Your task to perform on an android device: turn off improve location accuracy Image 0: 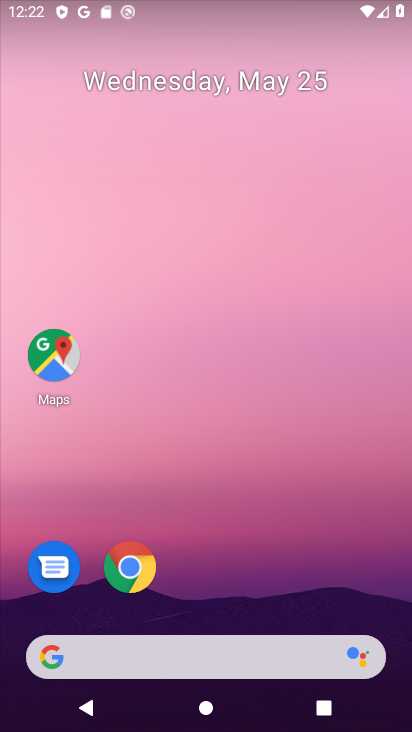
Step 0: drag from (214, 561) to (208, 185)
Your task to perform on an android device: turn off improve location accuracy Image 1: 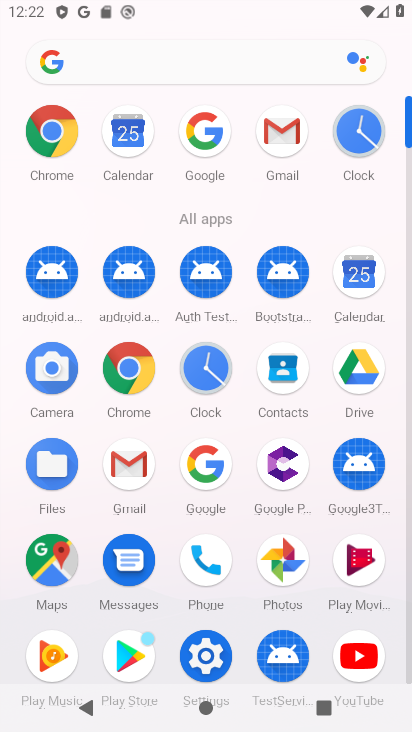
Step 1: click (205, 656)
Your task to perform on an android device: turn off improve location accuracy Image 2: 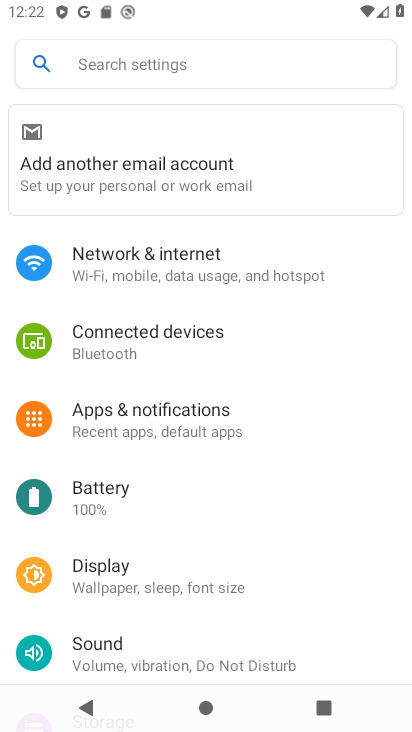
Step 2: drag from (149, 539) to (162, 440)
Your task to perform on an android device: turn off improve location accuracy Image 3: 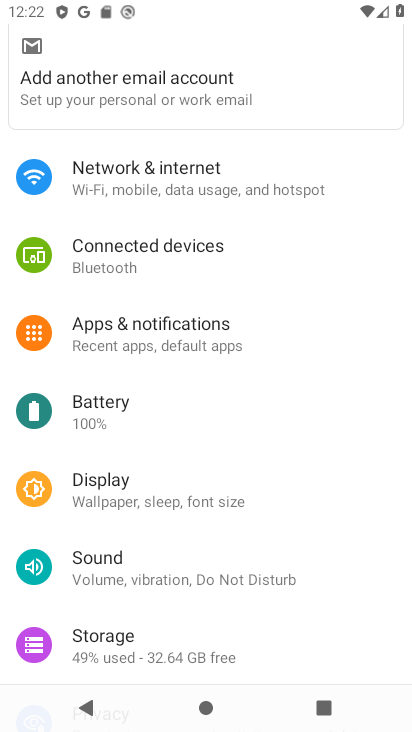
Step 3: drag from (150, 555) to (175, 451)
Your task to perform on an android device: turn off improve location accuracy Image 4: 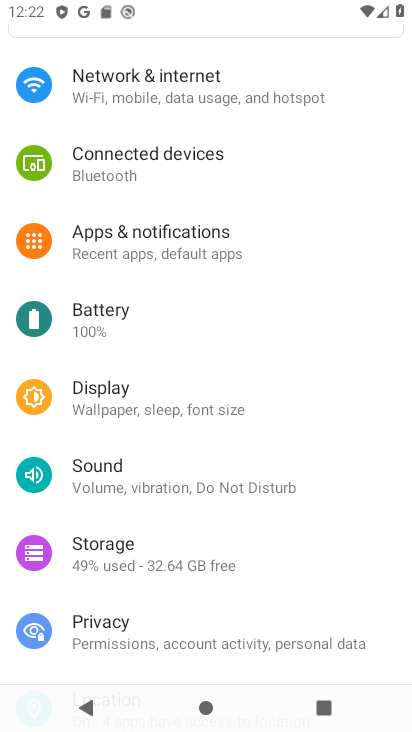
Step 4: drag from (147, 593) to (208, 475)
Your task to perform on an android device: turn off improve location accuracy Image 5: 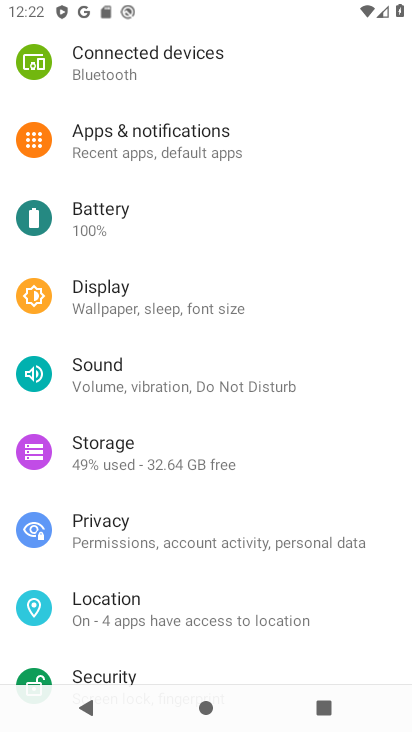
Step 5: click (113, 590)
Your task to perform on an android device: turn off improve location accuracy Image 6: 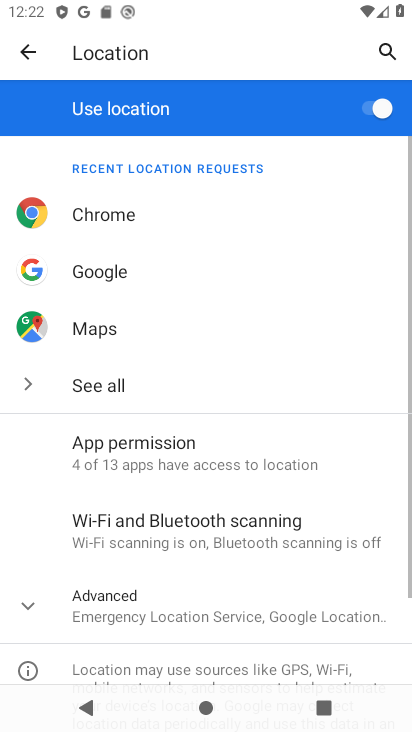
Step 6: click (110, 601)
Your task to perform on an android device: turn off improve location accuracy Image 7: 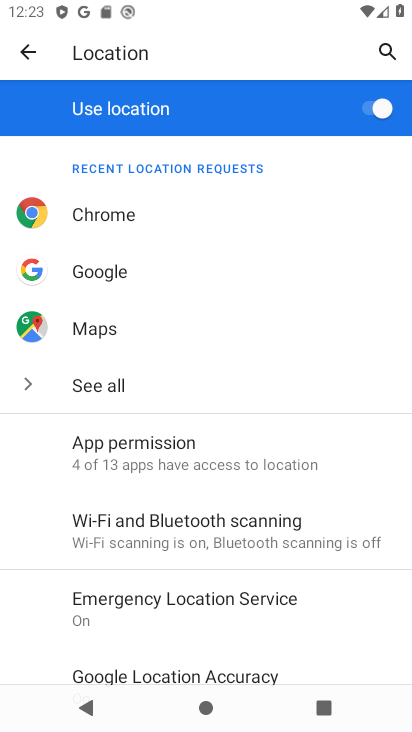
Step 7: drag from (163, 574) to (228, 461)
Your task to perform on an android device: turn off improve location accuracy Image 8: 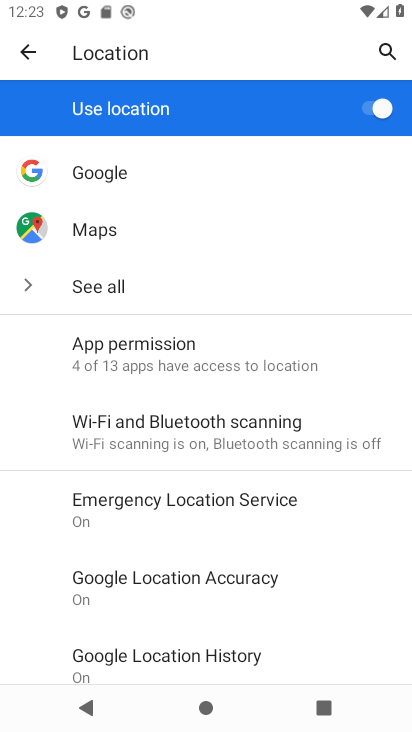
Step 8: click (157, 575)
Your task to perform on an android device: turn off improve location accuracy Image 9: 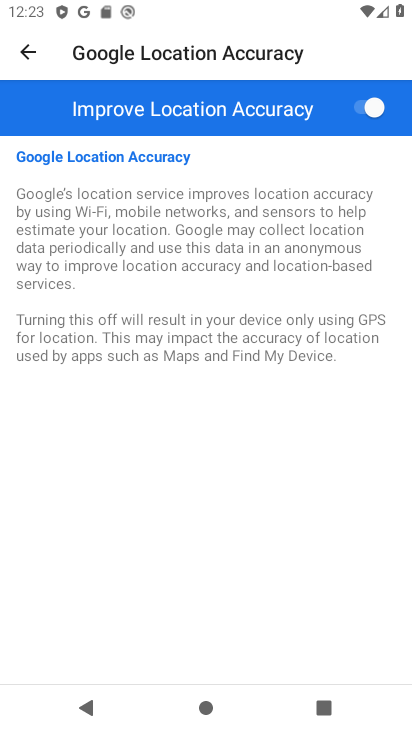
Step 9: click (375, 97)
Your task to perform on an android device: turn off improve location accuracy Image 10: 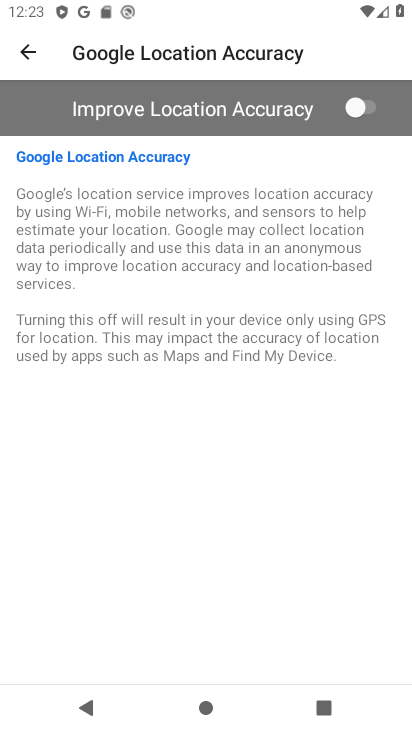
Step 10: task complete